Your task to perform on an android device: turn off notifications settings in the gmail app Image 0: 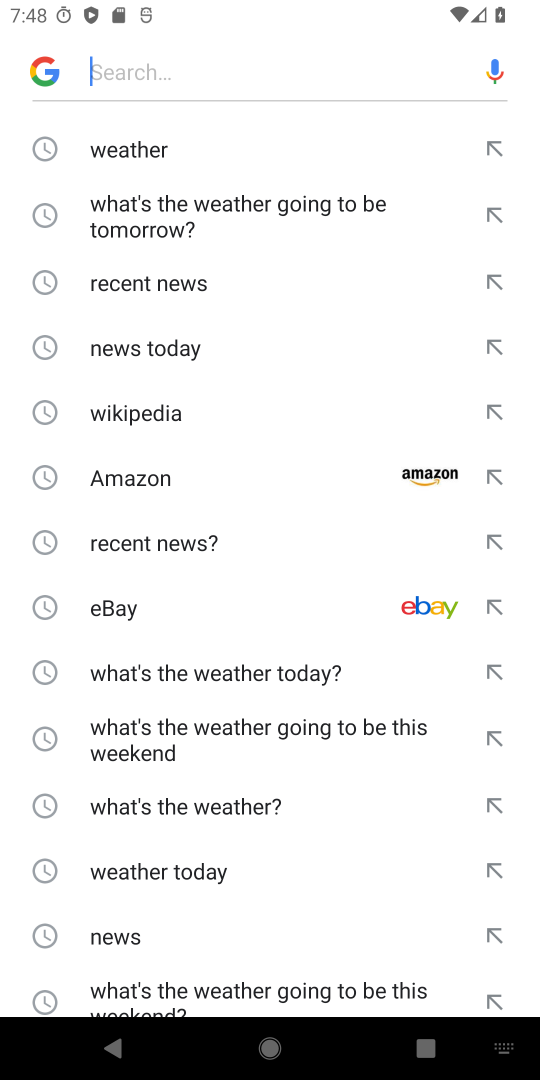
Step 0: press home button
Your task to perform on an android device: turn off notifications settings in the gmail app Image 1: 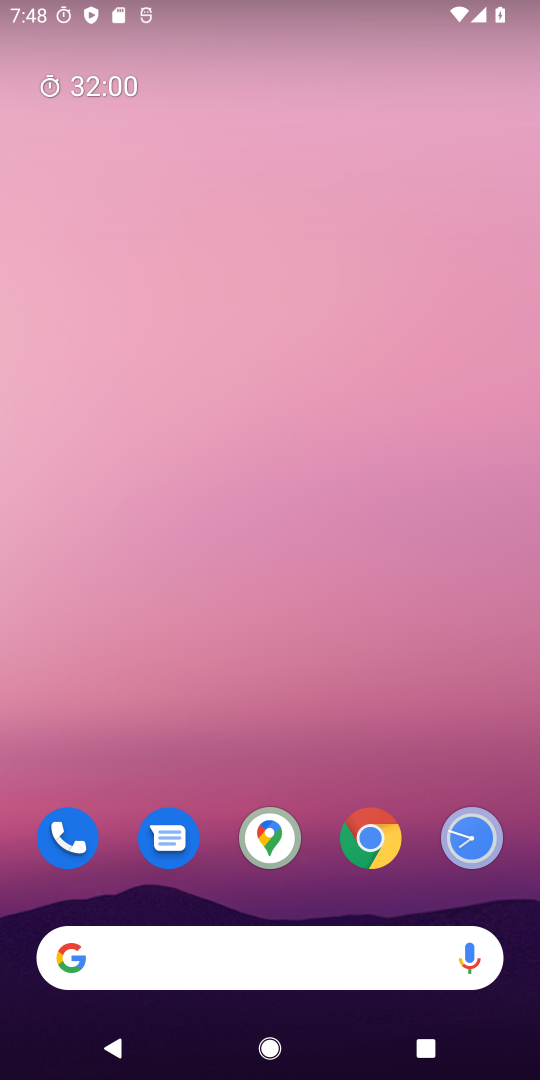
Step 1: drag from (308, 881) to (423, 2)
Your task to perform on an android device: turn off notifications settings in the gmail app Image 2: 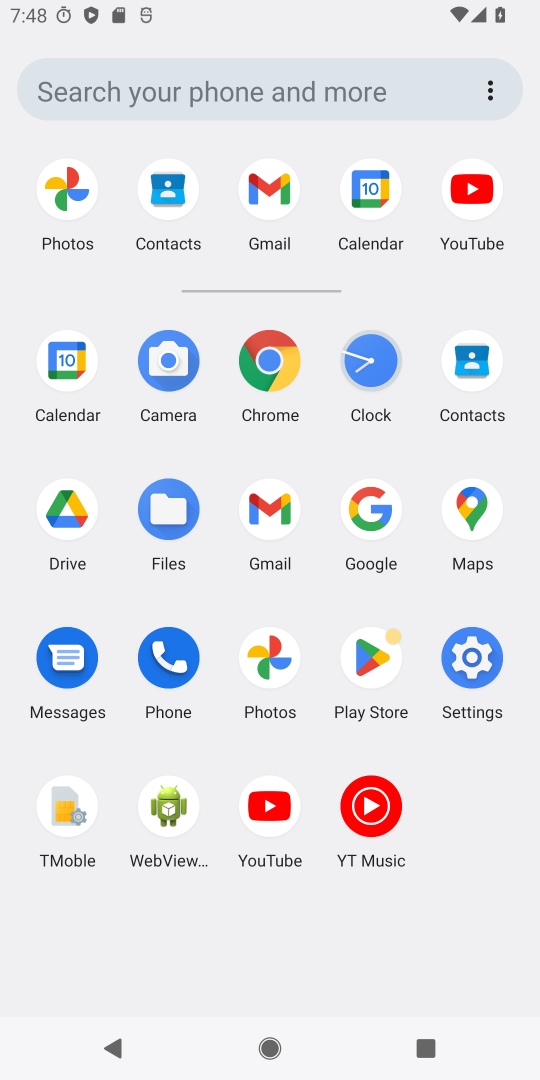
Step 2: click (275, 518)
Your task to perform on an android device: turn off notifications settings in the gmail app Image 3: 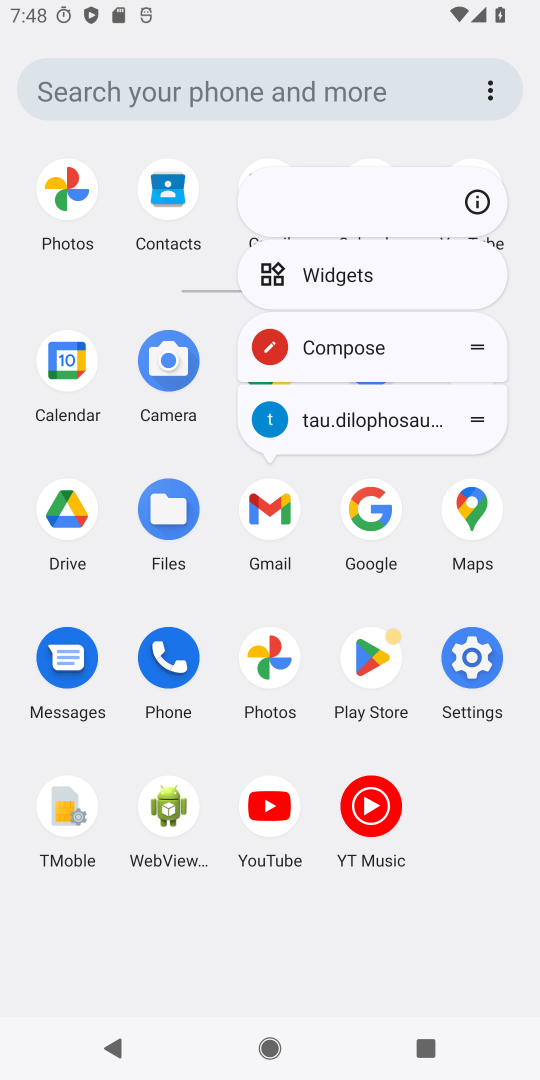
Step 3: click (474, 193)
Your task to perform on an android device: turn off notifications settings in the gmail app Image 4: 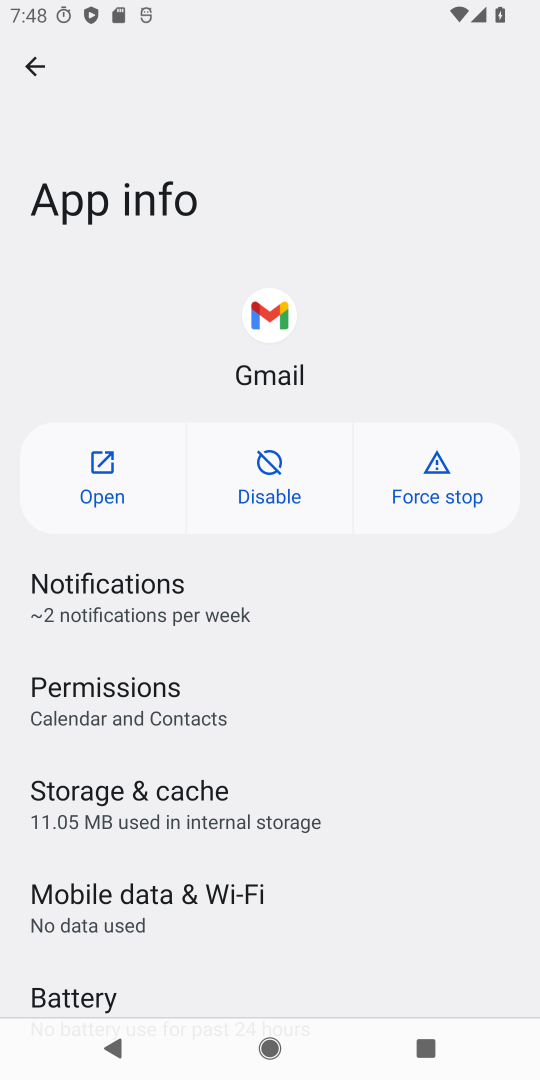
Step 4: click (173, 601)
Your task to perform on an android device: turn off notifications settings in the gmail app Image 5: 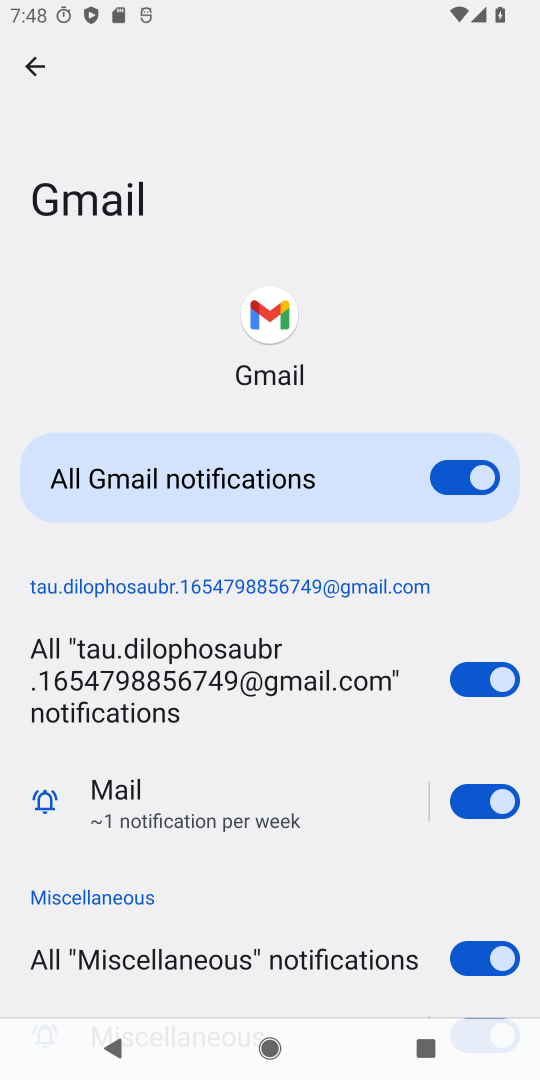
Step 5: click (463, 478)
Your task to perform on an android device: turn off notifications settings in the gmail app Image 6: 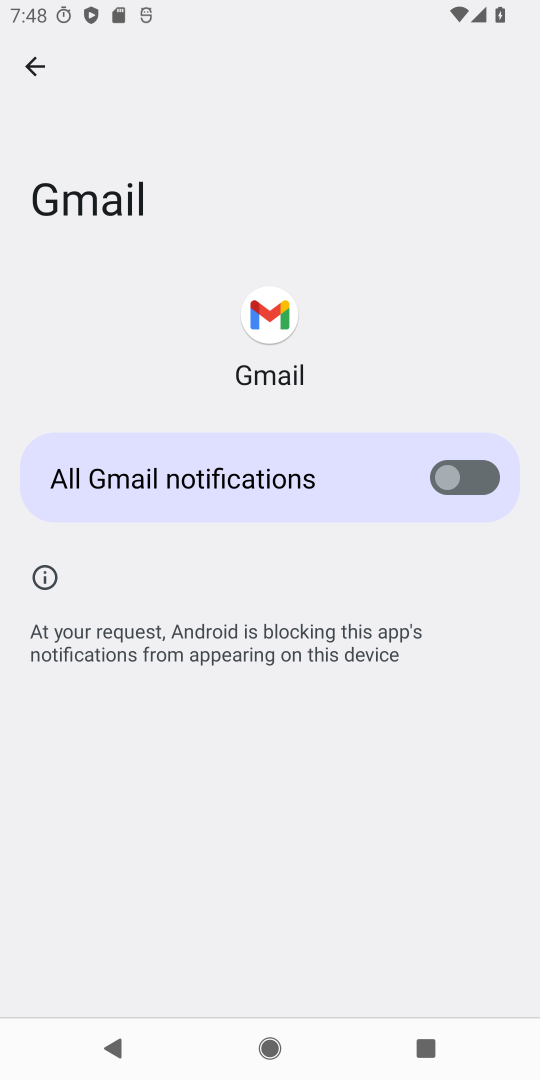
Step 6: task complete